Your task to perform on an android device: Go to network settings Image 0: 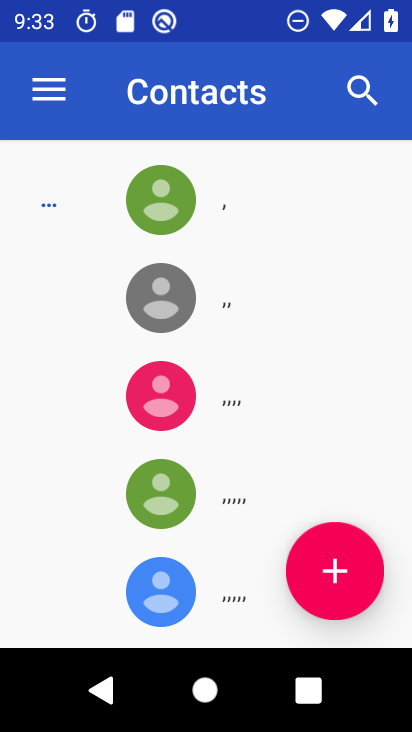
Step 0: press home button
Your task to perform on an android device: Go to network settings Image 1: 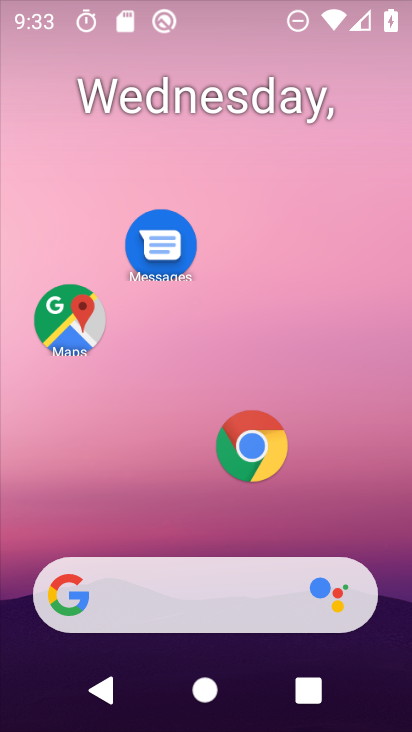
Step 1: drag from (230, 10) to (281, 516)
Your task to perform on an android device: Go to network settings Image 2: 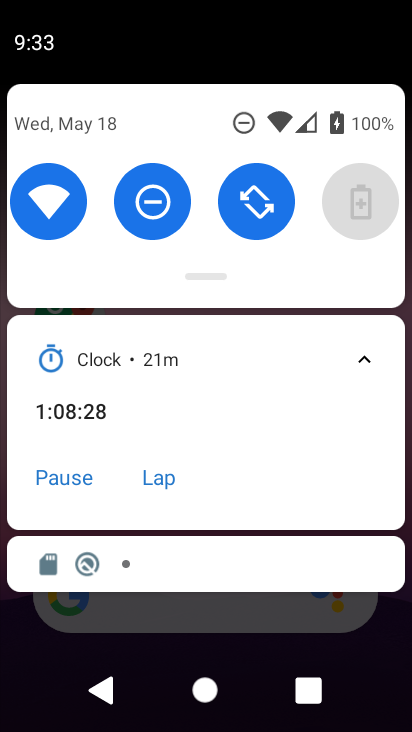
Step 2: drag from (245, 662) to (362, 213)
Your task to perform on an android device: Go to network settings Image 3: 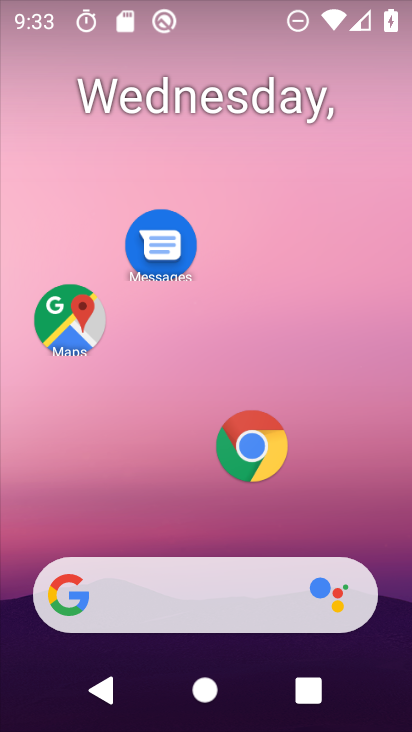
Step 3: drag from (204, 535) to (302, 113)
Your task to perform on an android device: Go to network settings Image 4: 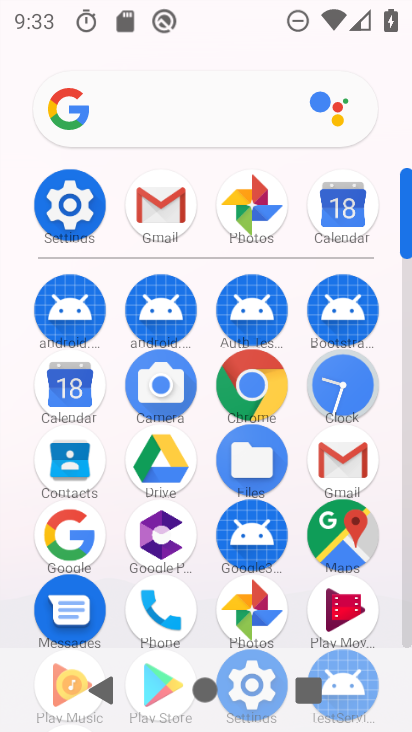
Step 4: click (68, 201)
Your task to perform on an android device: Go to network settings Image 5: 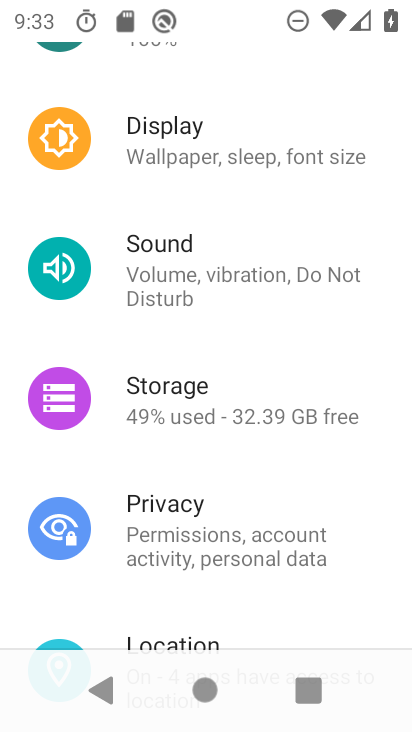
Step 5: drag from (198, 175) to (232, 636)
Your task to perform on an android device: Go to network settings Image 6: 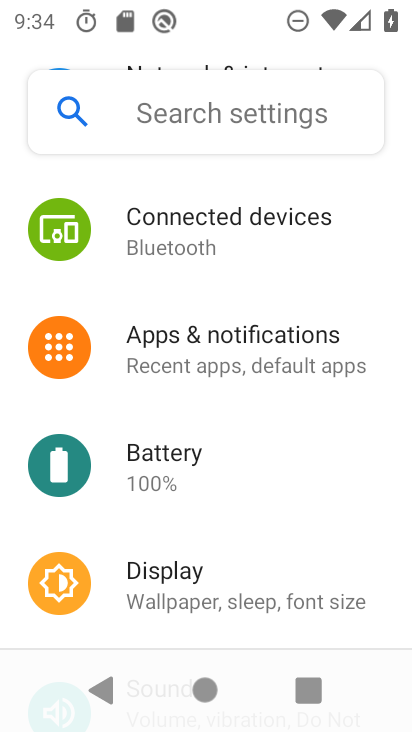
Step 6: drag from (214, 193) to (222, 470)
Your task to perform on an android device: Go to network settings Image 7: 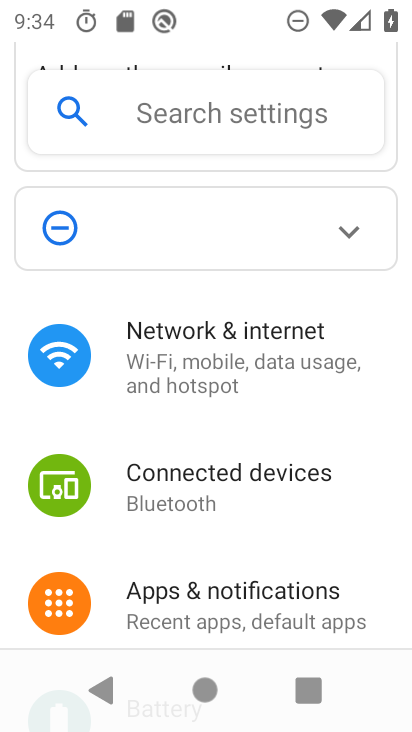
Step 7: click (146, 352)
Your task to perform on an android device: Go to network settings Image 8: 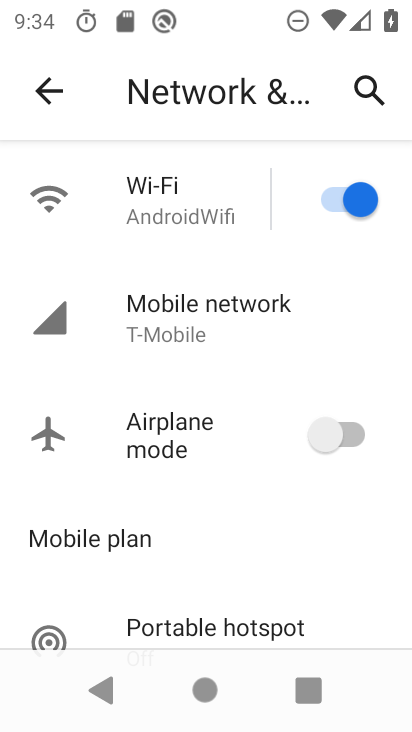
Step 8: drag from (180, 543) to (217, 248)
Your task to perform on an android device: Go to network settings Image 9: 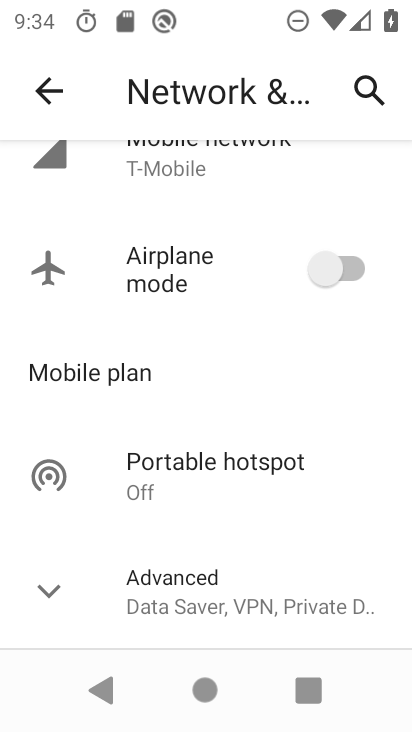
Step 9: click (48, 581)
Your task to perform on an android device: Go to network settings Image 10: 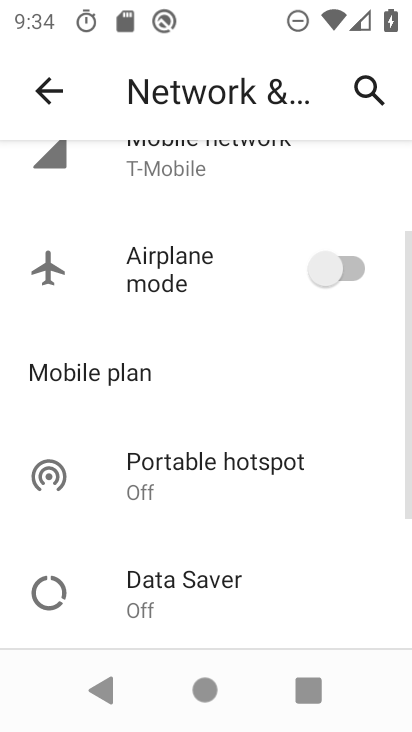
Step 10: task complete